Your task to perform on an android device: Check my gmail inbox Image 0: 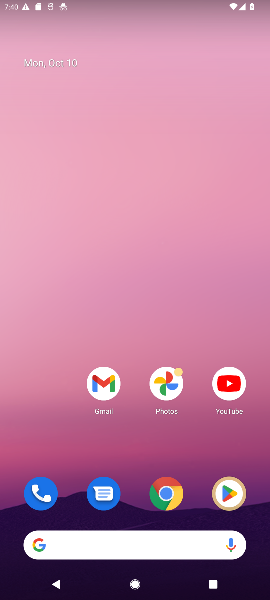
Step 0: click (120, 74)
Your task to perform on an android device: Check my gmail inbox Image 1: 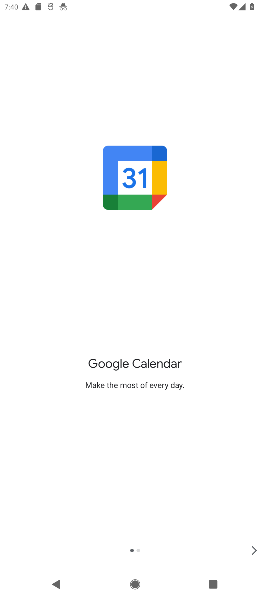
Step 1: press home button
Your task to perform on an android device: Check my gmail inbox Image 2: 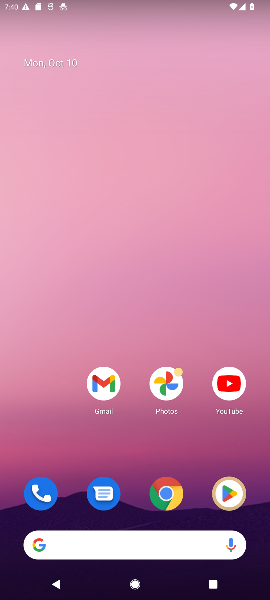
Step 2: drag from (129, 486) to (118, 136)
Your task to perform on an android device: Check my gmail inbox Image 3: 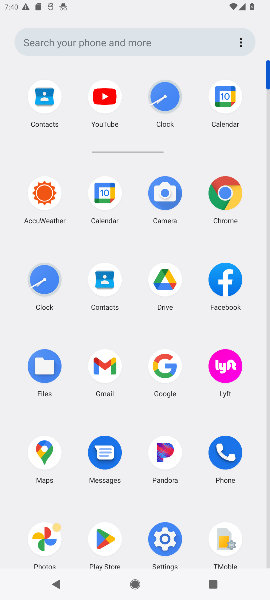
Step 3: click (101, 365)
Your task to perform on an android device: Check my gmail inbox Image 4: 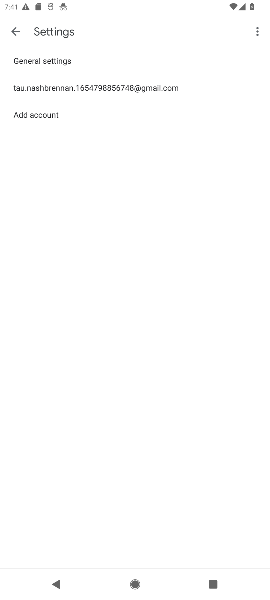
Step 4: click (15, 30)
Your task to perform on an android device: Check my gmail inbox Image 5: 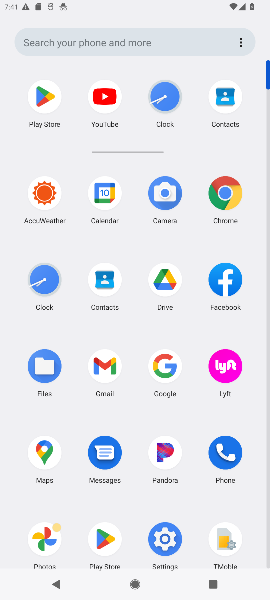
Step 5: click (103, 377)
Your task to perform on an android device: Check my gmail inbox Image 6: 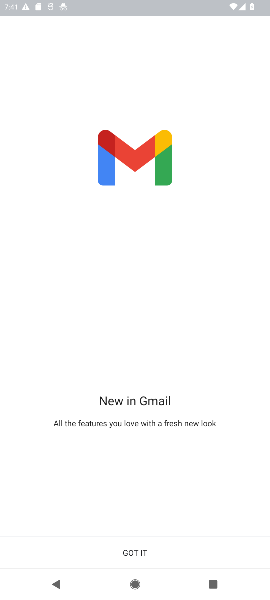
Step 6: click (134, 556)
Your task to perform on an android device: Check my gmail inbox Image 7: 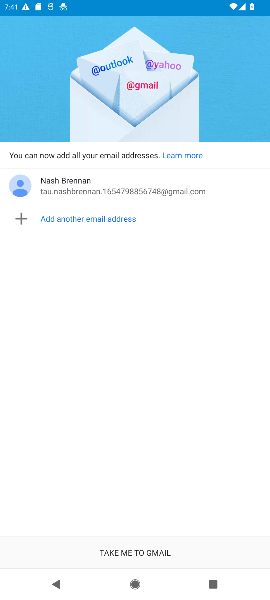
Step 7: click (134, 548)
Your task to perform on an android device: Check my gmail inbox Image 8: 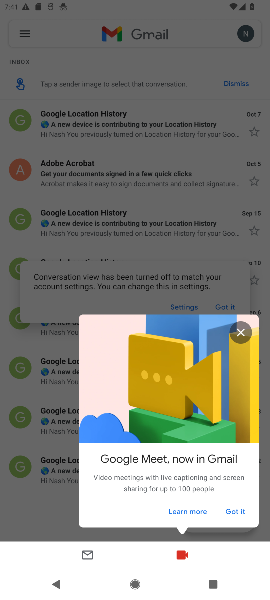
Step 8: click (234, 508)
Your task to perform on an android device: Check my gmail inbox Image 9: 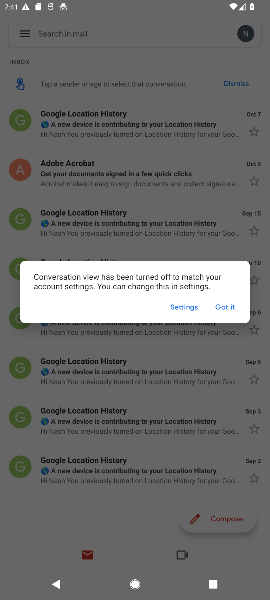
Step 9: click (221, 306)
Your task to perform on an android device: Check my gmail inbox Image 10: 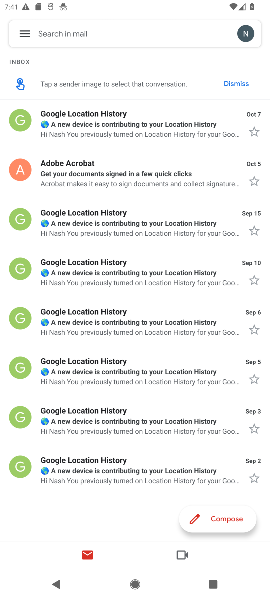
Step 10: task complete